Your task to perform on an android device: Search for "razer huntsman" on ebay.com, select the first entry, add it to the cart, then select checkout. Image 0: 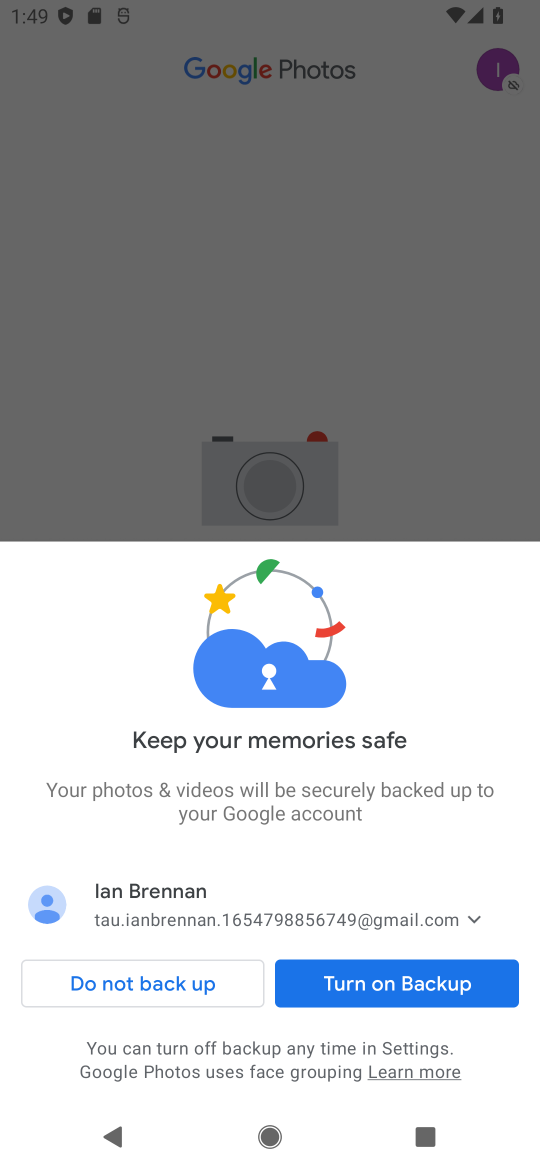
Step 0: press home button
Your task to perform on an android device: Search for "razer huntsman" on ebay.com, select the first entry, add it to the cart, then select checkout. Image 1: 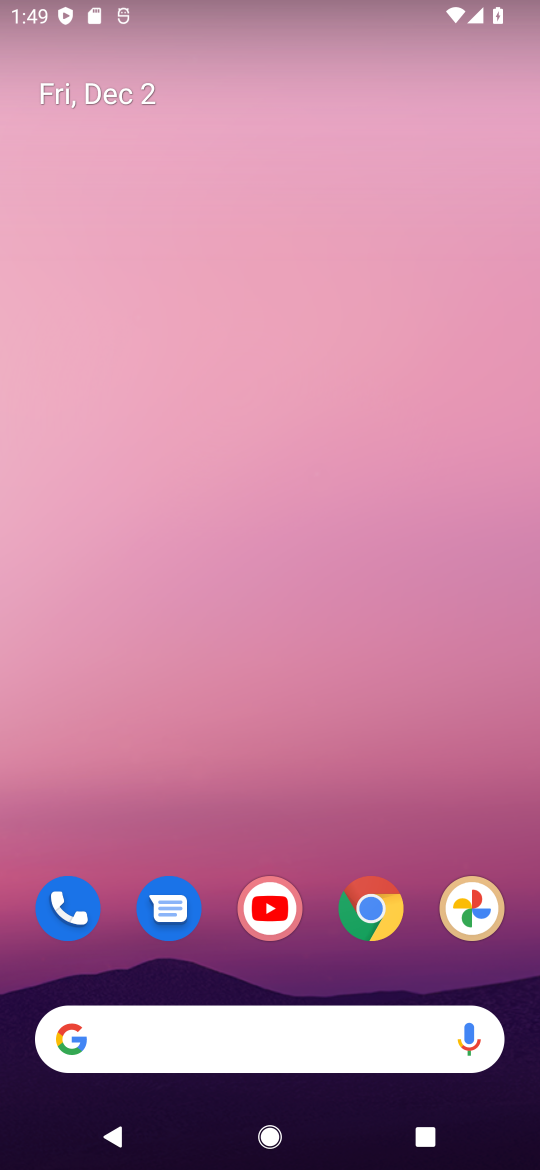
Step 1: drag from (254, 1041) to (232, 517)
Your task to perform on an android device: Search for "razer huntsman" on ebay.com, select the first entry, add it to the cart, then select checkout. Image 2: 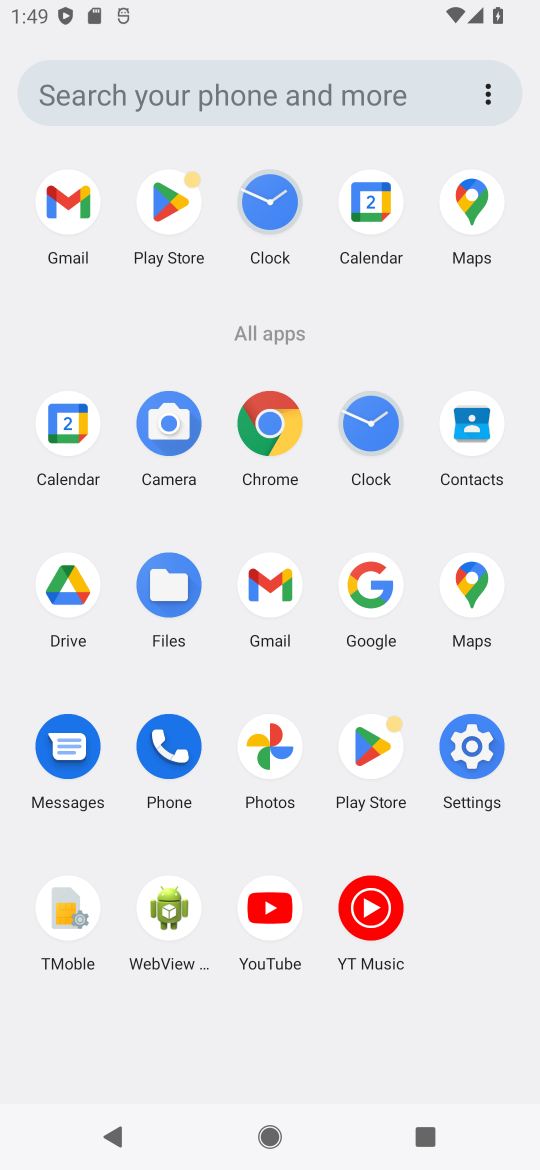
Step 2: click (367, 585)
Your task to perform on an android device: Search for "razer huntsman" on ebay.com, select the first entry, add it to the cart, then select checkout. Image 3: 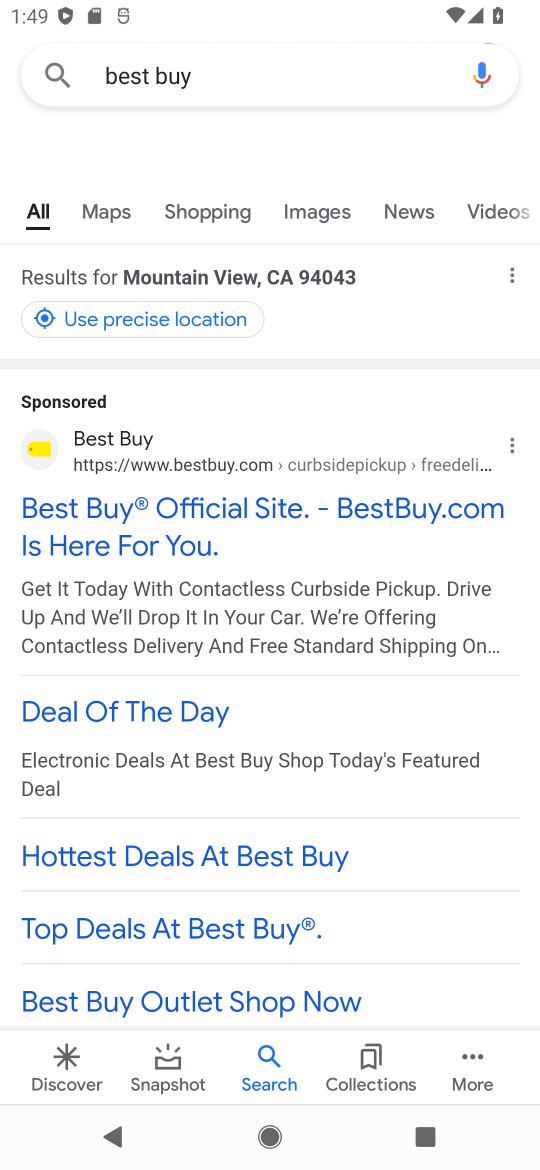
Step 3: click (134, 79)
Your task to perform on an android device: Search for "razer huntsman" on ebay.com, select the first entry, add it to the cart, then select checkout. Image 4: 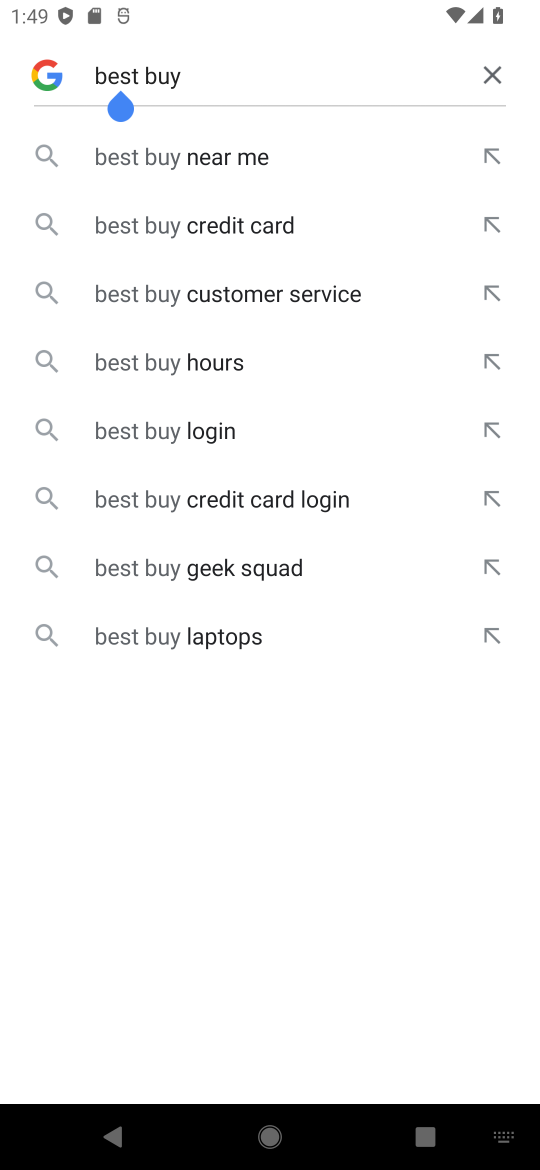
Step 4: click (480, 73)
Your task to perform on an android device: Search for "razer huntsman" on ebay.com, select the first entry, add it to the cart, then select checkout. Image 5: 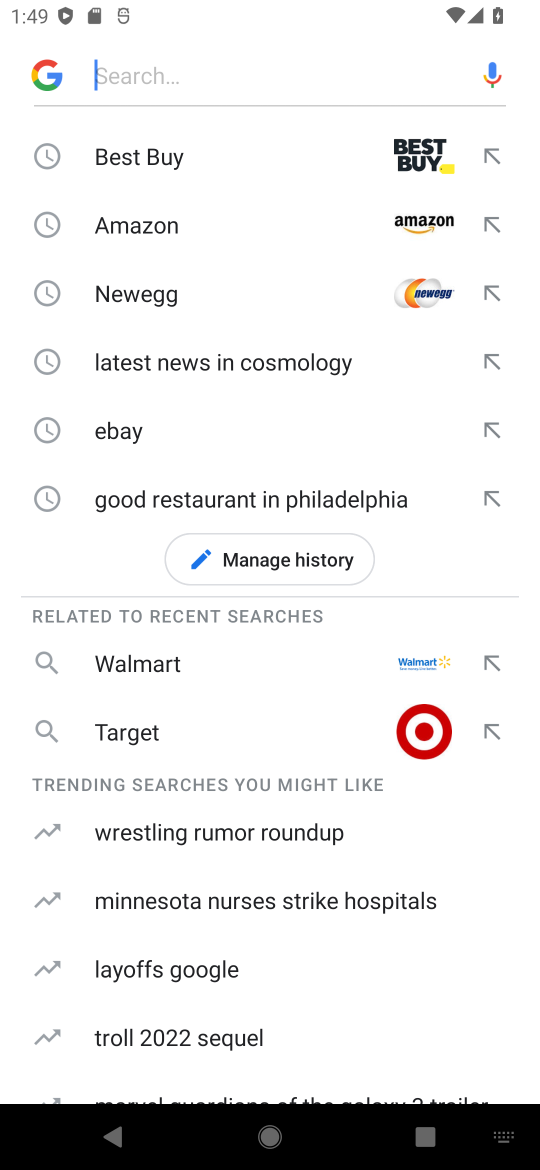
Step 5: click (101, 431)
Your task to perform on an android device: Search for "razer huntsman" on ebay.com, select the first entry, add it to the cart, then select checkout. Image 6: 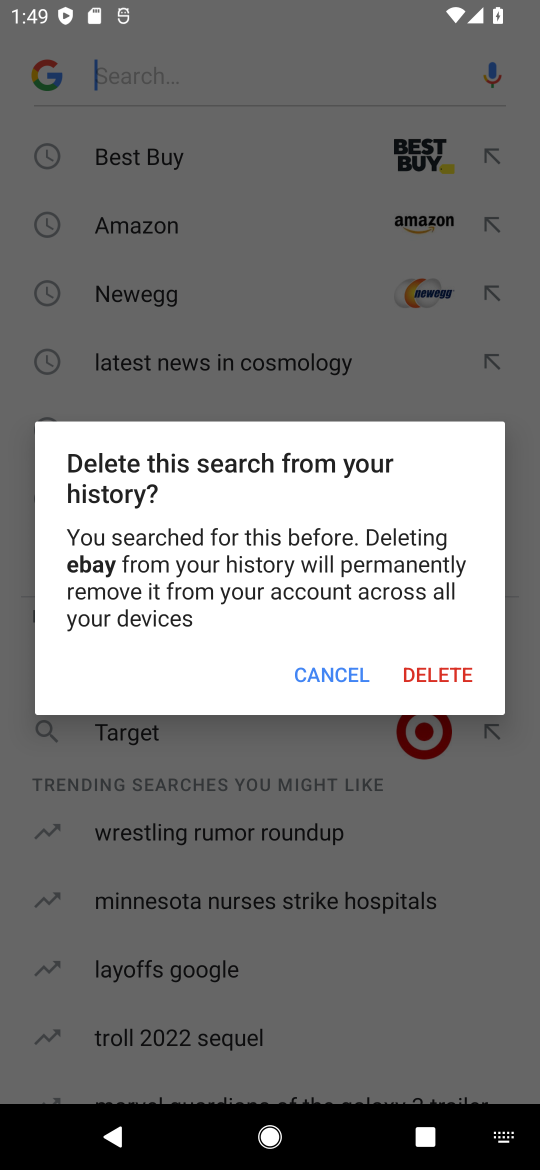
Step 6: click (324, 683)
Your task to perform on an android device: Search for "razer huntsman" on ebay.com, select the first entry, add it to the cart, then select checkout. Image 7: 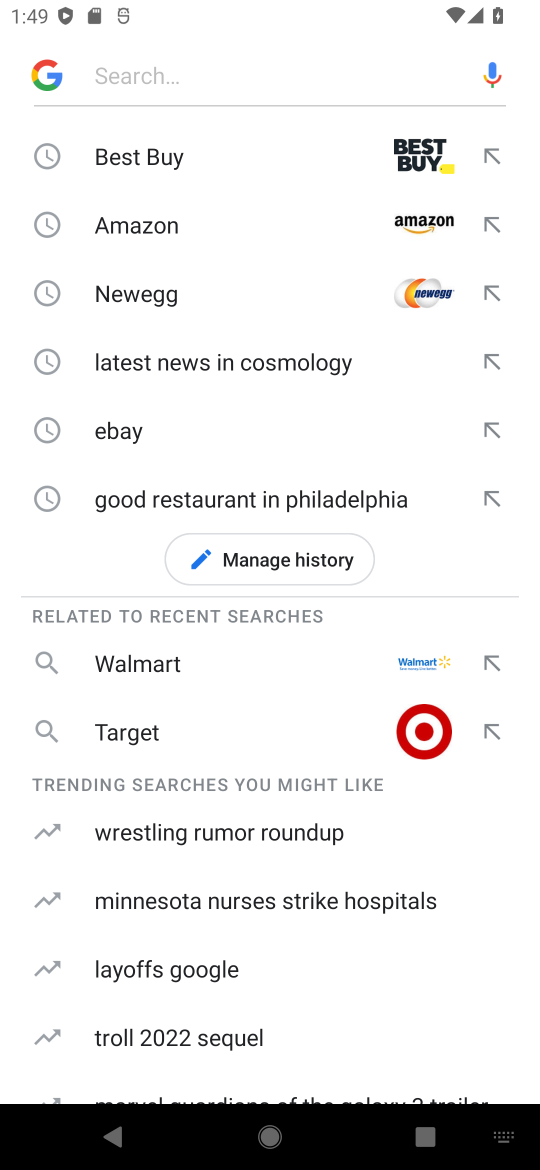
Step 7: click (146, 431)
Your task to perform on an android device: Search for "razer huntsman" on ebay.com, select the first entry, add it to the cart, then select checkout. Image 8: 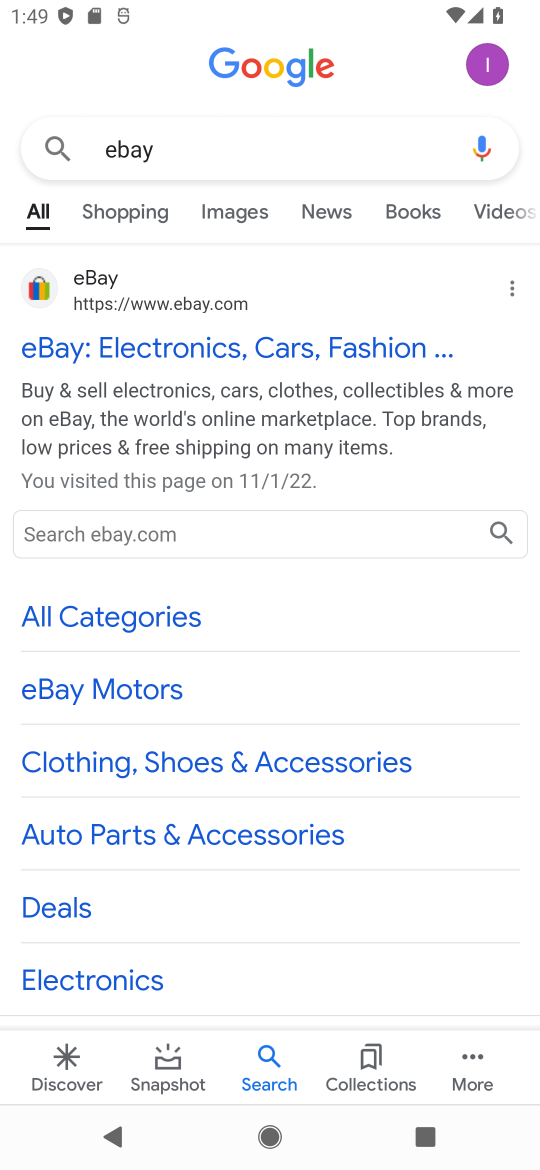
Step 8: click (211, 346)
Your task to perform on an android device: Search for "razer huntsman" on ebay.com, select the first entry, add it to the cart, then select checkout. Image 9: 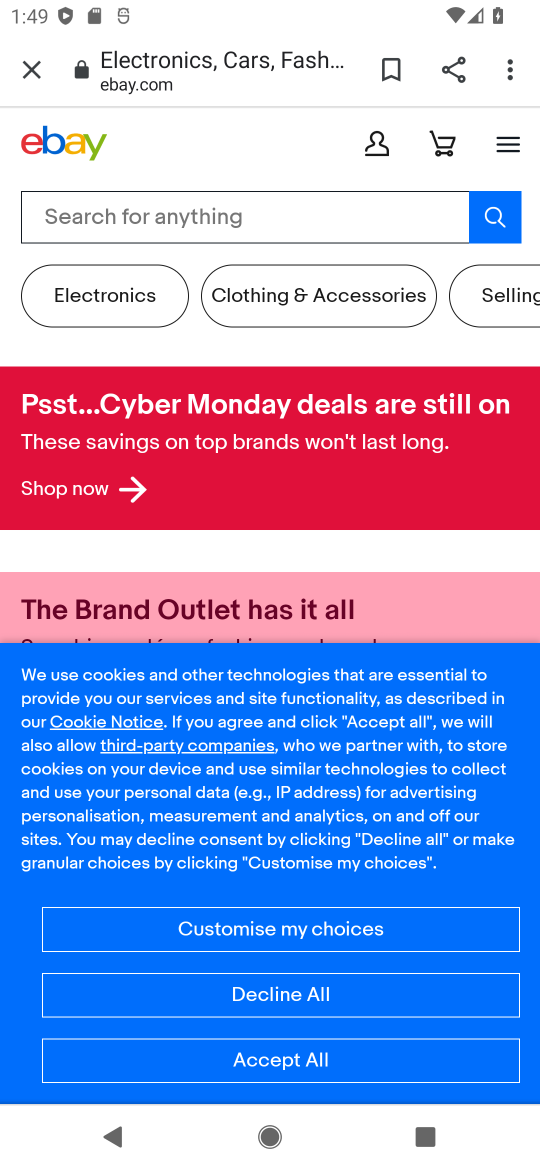
Step 9: click (128, 221)
Your task to perform on an android device: Search for "razer huntsman" on ebay.com, select the first entry, add it to the cart, then select checkout. Image 10: 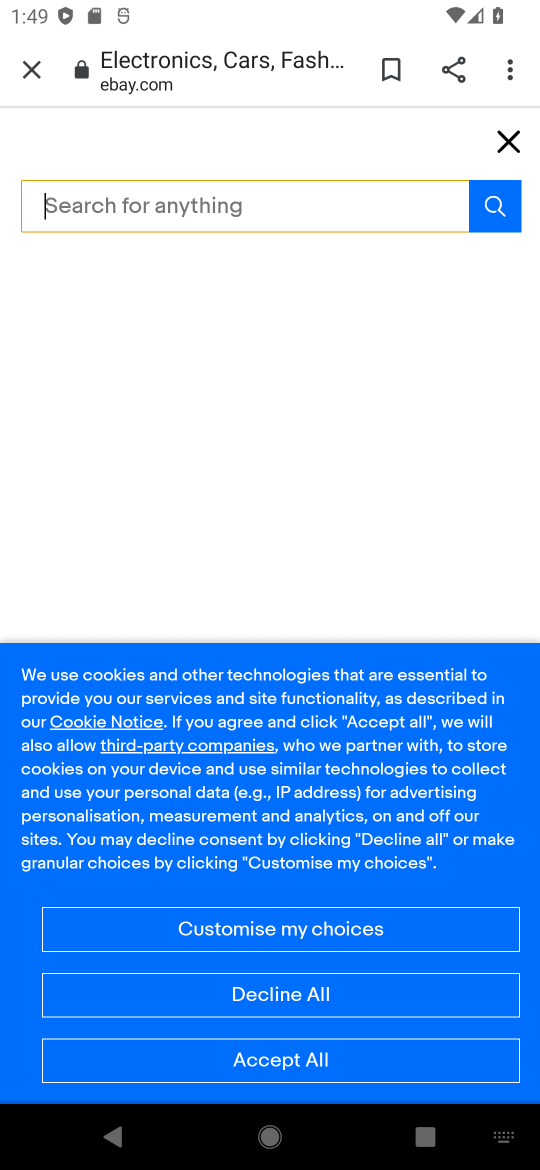
Step 10: type "razer huntsman"
Your task to perform on an android device: Search for "razer huntsman" on ebay.com, select the first entry, add it to the cart, then select checkout. Image 11: 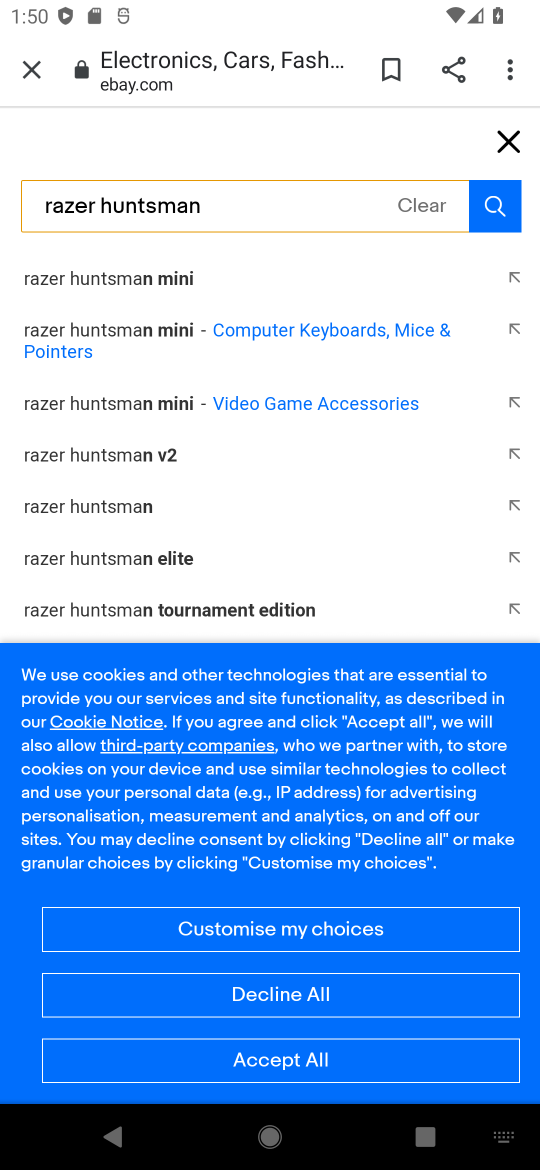
Step 11: click (92, 277)
Your task to perform on an android device: Search for "razer huntsman" on ebay.com, select the first entry, add it to the cart, then select checkout. Image 12: 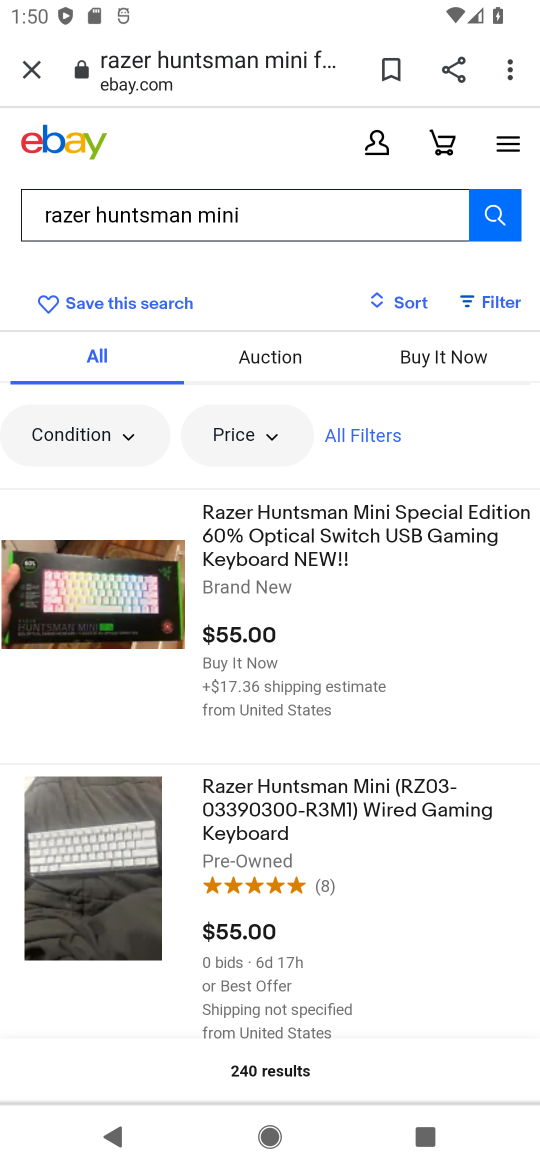
Step 12: click (270, 579)
Your task to perform on an android device: Search for "razer huntsman" on ebay.com, select the first entry, add it to the cart, then select checkout. Image 13: 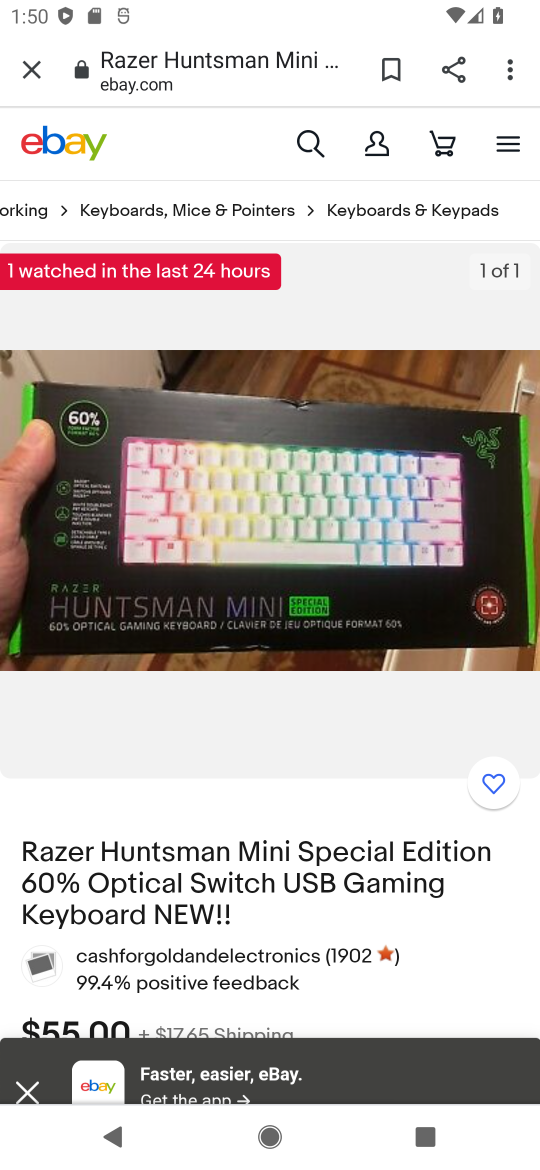
Step 13: drag from (339, 980) to (339, 496)
Your task to perform on an android device: Search for "razer huntsman" on ebay.com, select the first entry, add it to the cart, then select checkout. Image 14: 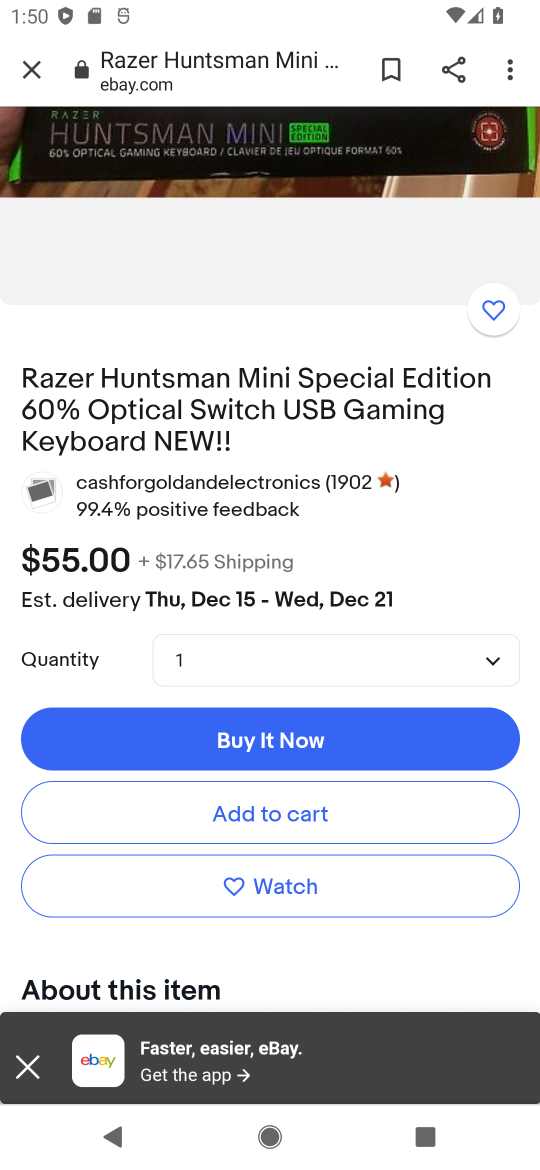
Step 14: click (272, 819)
Your task to perform on an android device: Search for "razer huntsman" on ebay.com, select the first entry, add it to the cart, then select checkout. Image 15: 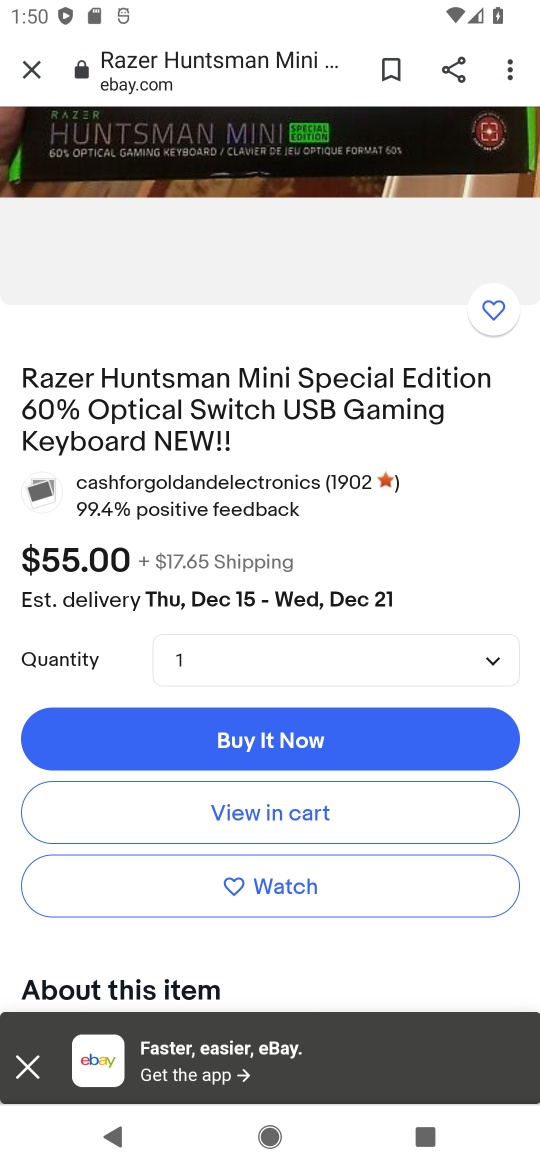
Step 15: click (306, 817)
Your task to perform on an android device: Search for "razer huntsman" on ebay.com, select the first entry, add it to the cart, then select checkout. Image 16: 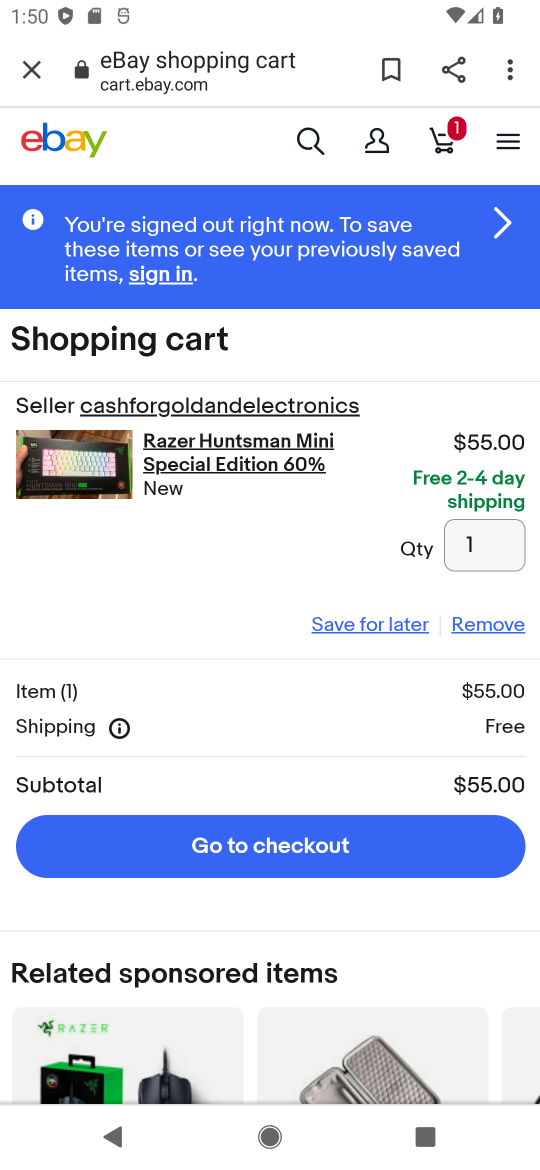
Step 16: click (288, 854)
Your task to perform on an android device: Search for "razer huntsman" on ebay.com, select the first entry, add it to the cart, then select checkout. Image 17: 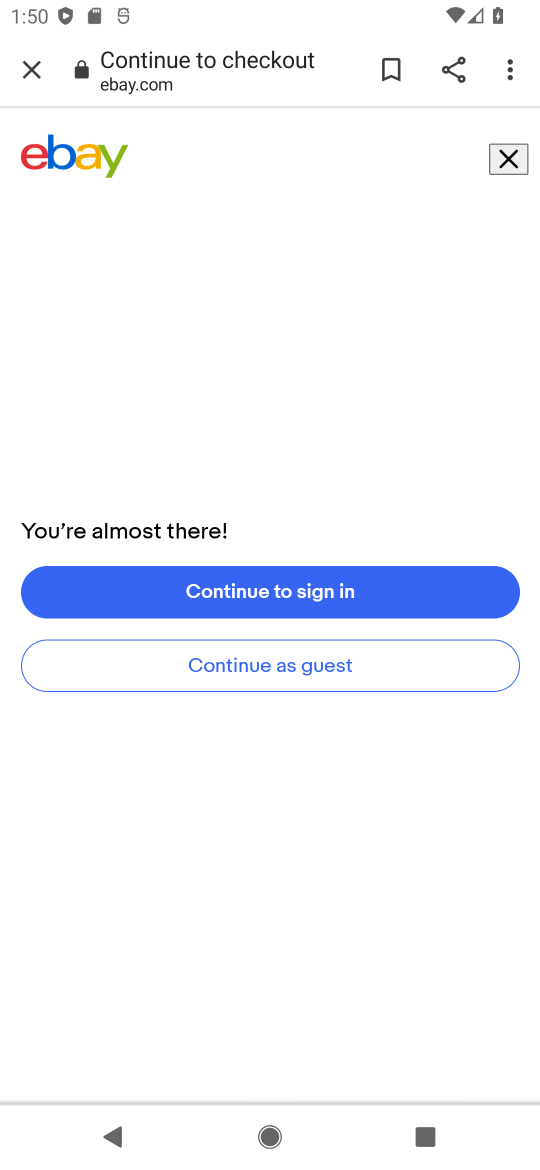
Step 17: task complete